Your task to perform on an android device: Go to Yahoo.com Image 0: 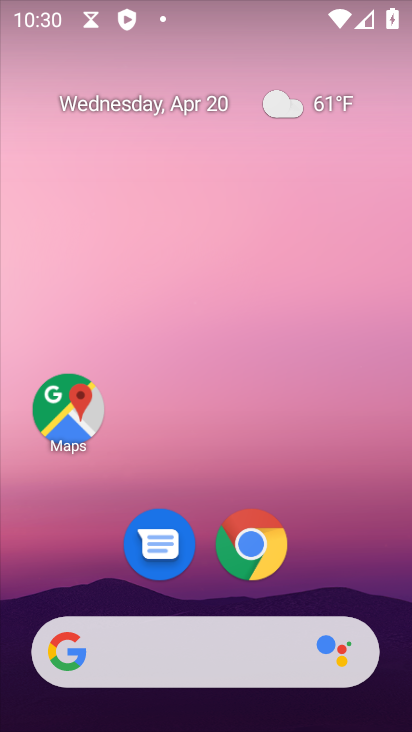
Step 0: drag from (166, 630) to (250, 125)
Your task to perform on an android device: Go to Yahoo.com Image 1: 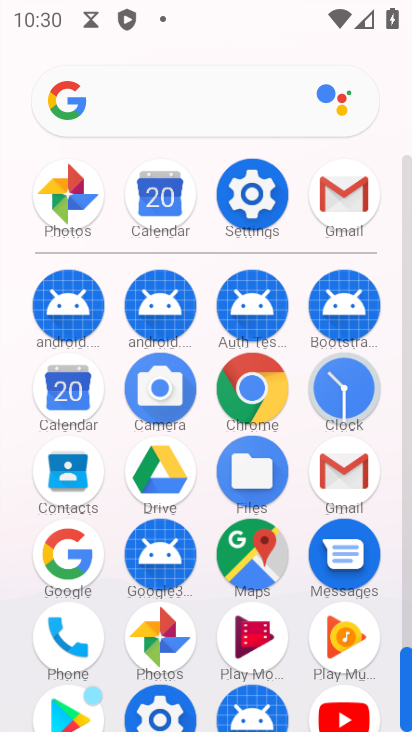
Step 1: click (267, 404)
Your task to perform on an android device: Go to Yahoo.com Image 2: 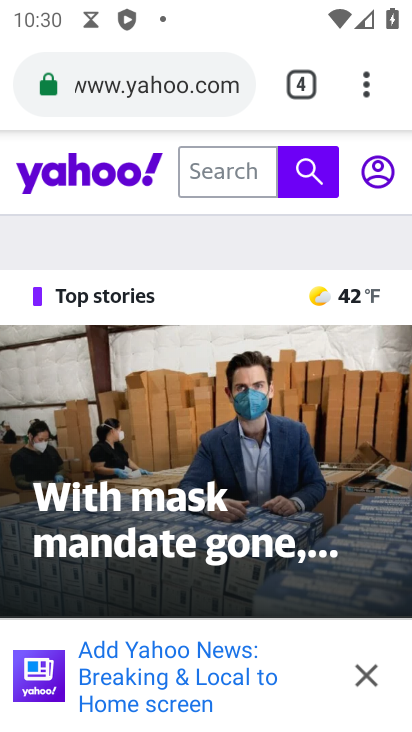
Step 2: task complete